Your task to perform on an android device: check storage Image 0: 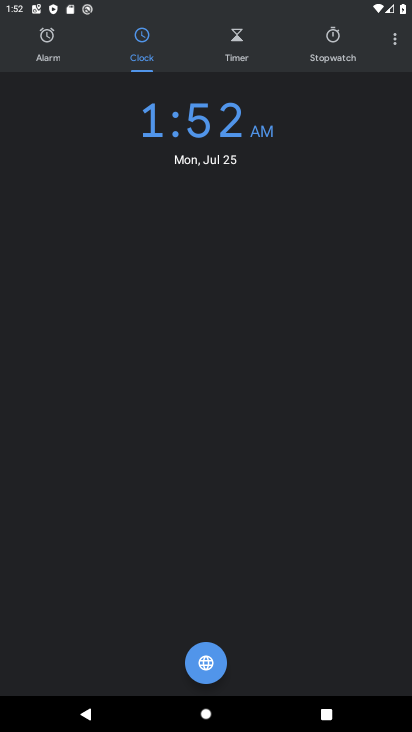
Step 0: press home button
Your task to perform on an android device: check storage Image 1: 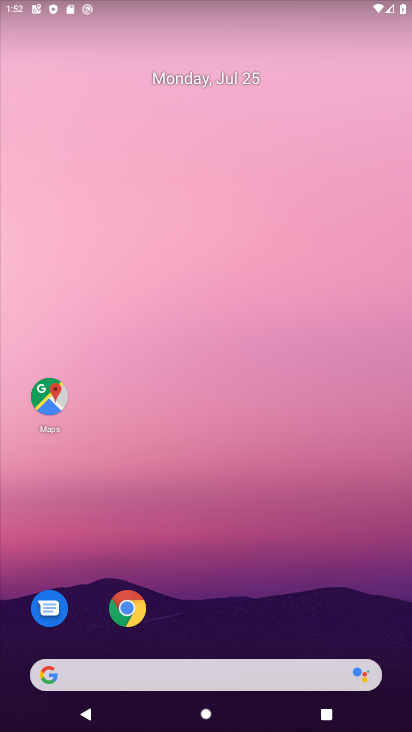
Step 1: drag from (216, 570) to (236, 182)
Your task to perform on an android device: check storage Image 2: 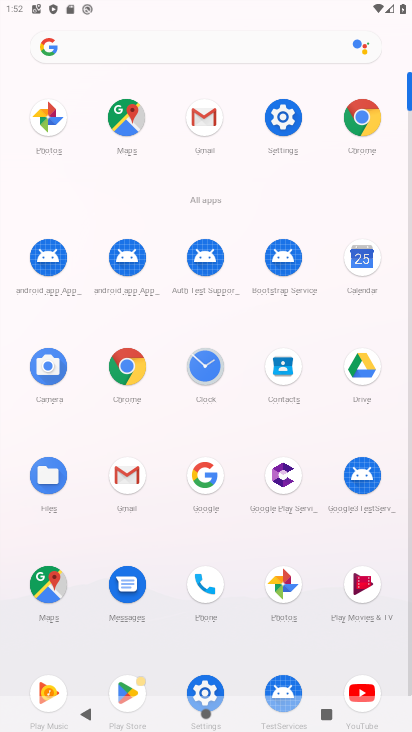
Step 2: click (284, 113)
Your task to perform on an android device: check storage Image 3: 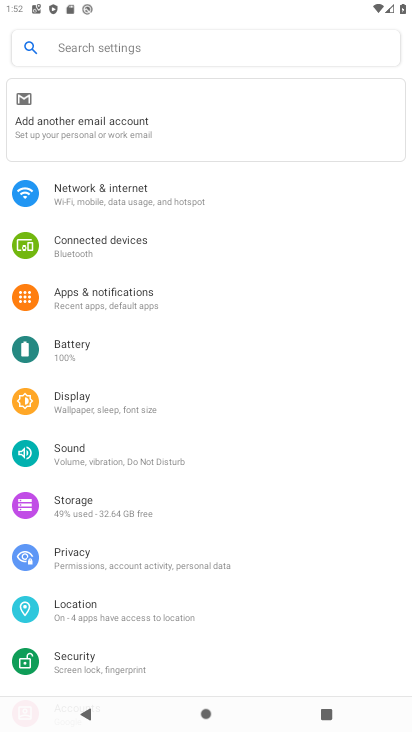
Step 3: click (78, 509)
Your task to perform on an android device: check storage Image 4: 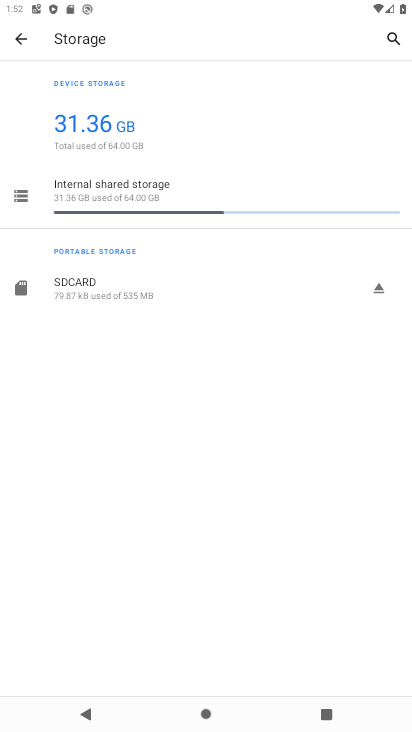
Step 4: task complete